Your task to perform on an android device: set an alarm Image 0: 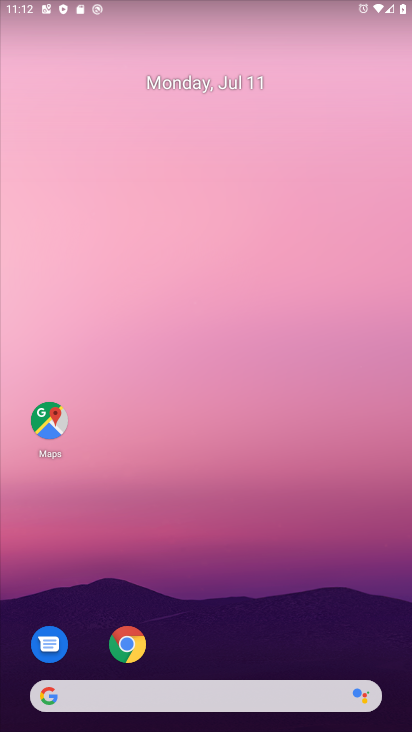
Step 0: drag from (217, 666) to (243, 119)
Your task to perform on an android device: set an alarm Image 1: 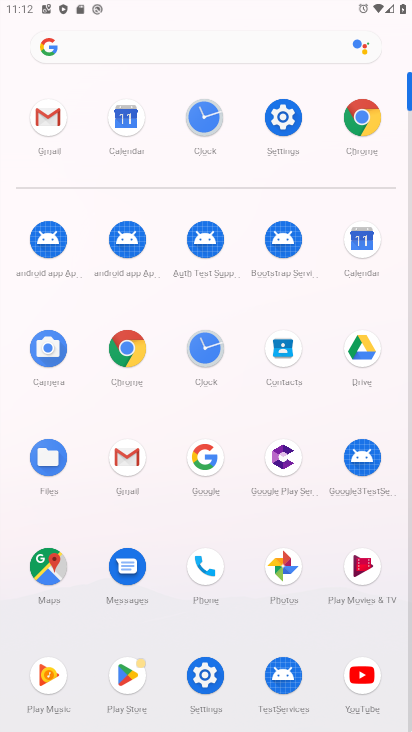
Step 1: click (204, 111)
Your task to perform on an android device: set an alarm Image 2: 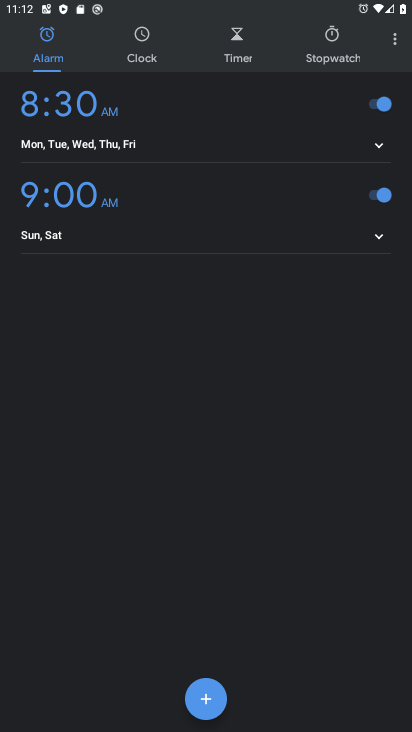
Step 2: click (204, 692)
Your task to perform on an android device: set an alarm Image 3: 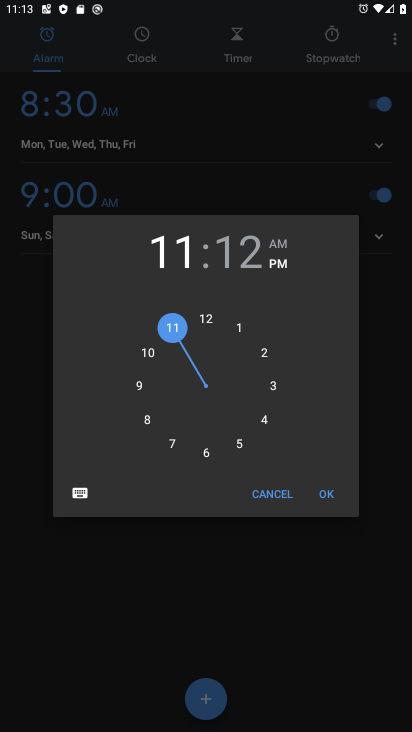
Step 3: click (205, 333)
Your task to perform on an android device: set an alarm Image 4: 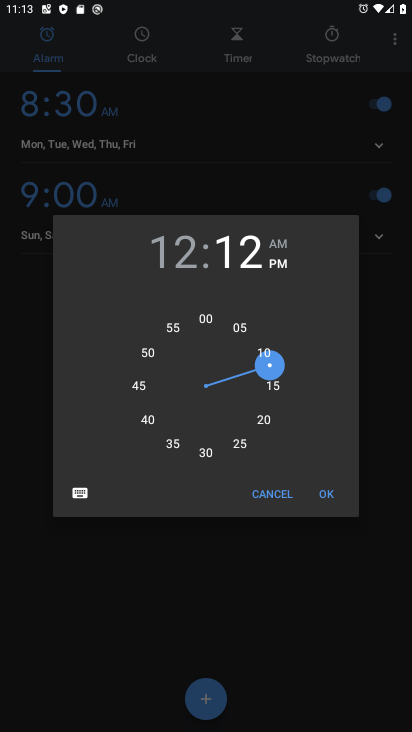
Step 4: drag from (274, 368) to (201, 315)
Your task to perform on an android device: set an alarm Image 5: 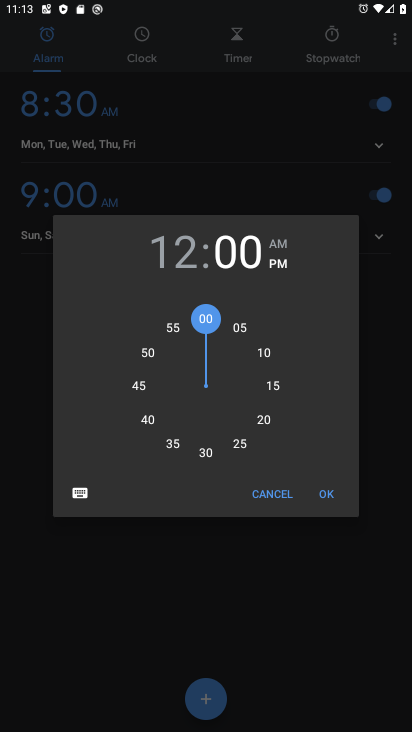
Step 5: click (321, 489)
Your task to perform on an android device: set an alarm Image 6: 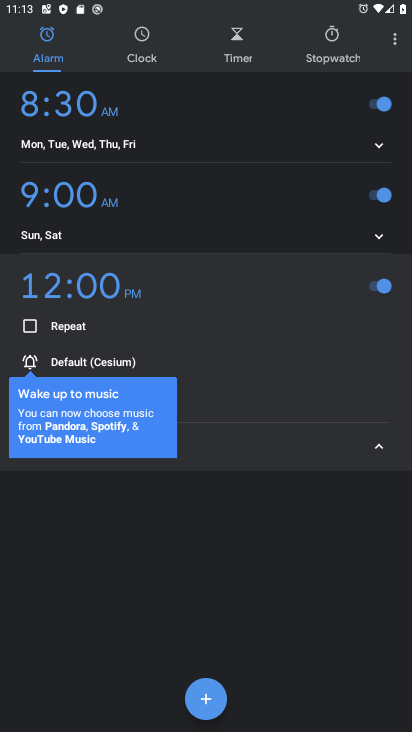
Step 6: task complete